Your task to perform on an android device: toggle sleep mode Image 0: 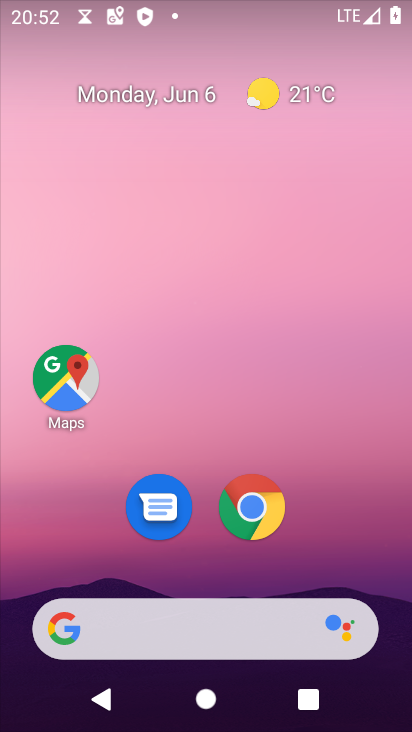
Step 0: drag from (215, 579) to (174, 5)
Your task to perform on an android device: toggle sleep mode Image 1: 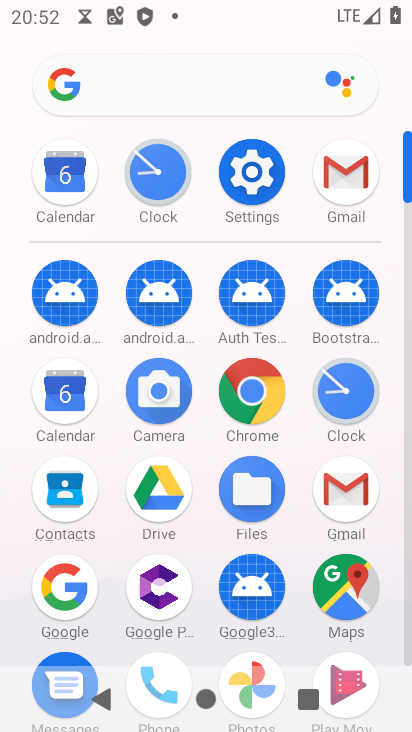
Step 1: click (250, 172)
Your task to perform on an android device: toggle sleep mode Image 2: 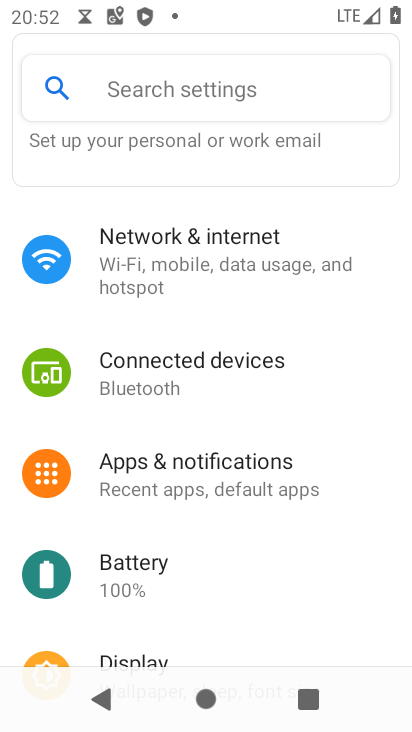
Step 2: task complete